Your task to perform on an android device: turn off location history Image 0: 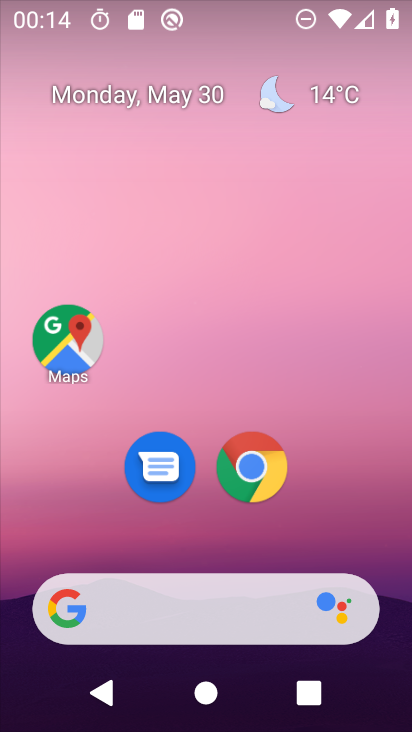
Step 0: drag from (199, 546) to (172, 212)
Your task to perform on an android device: turn off location history Image 1: 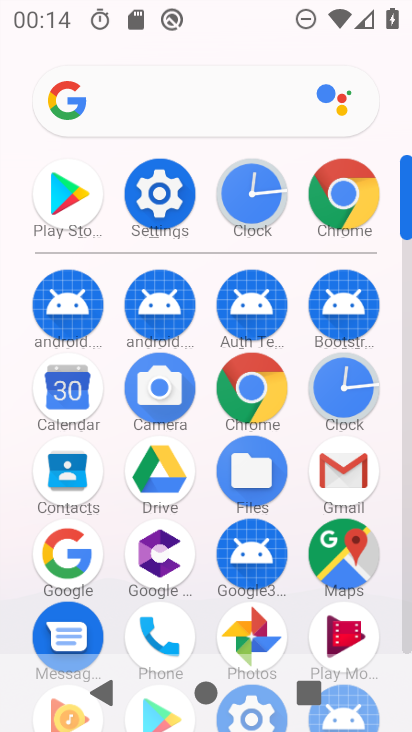
Step 1: click (164, 218)
Your task to perform on an android device: turn off location history Image 2: 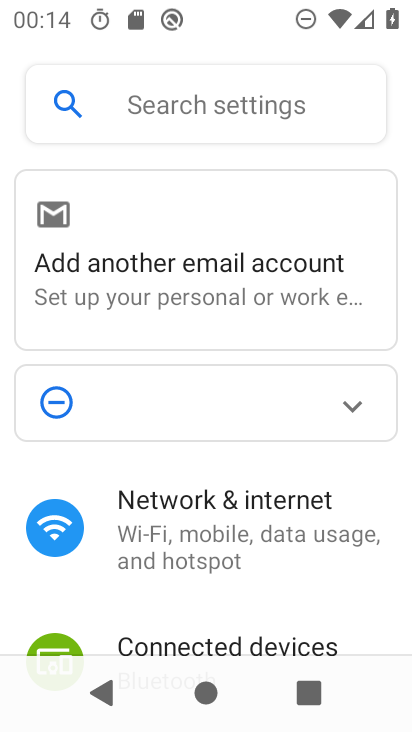
Step 2: drag from (203, 579) to (224, 317)
Your task to perform on an android device: turn off location history Image 3: 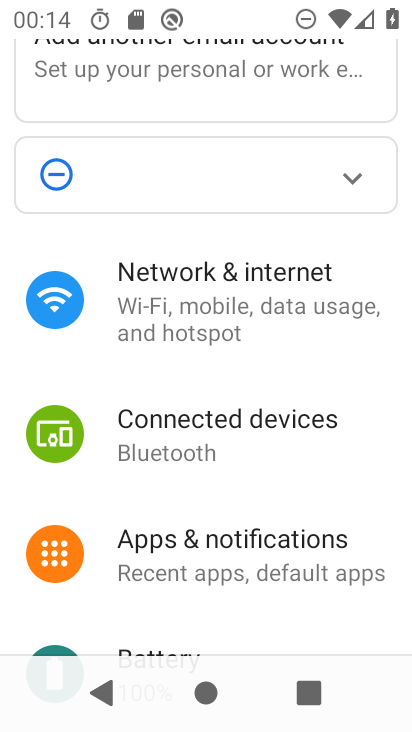
Step 3: drag from (200, 525) to (211, 333)
Your task to perform on an android device: turn off location history Image 4: 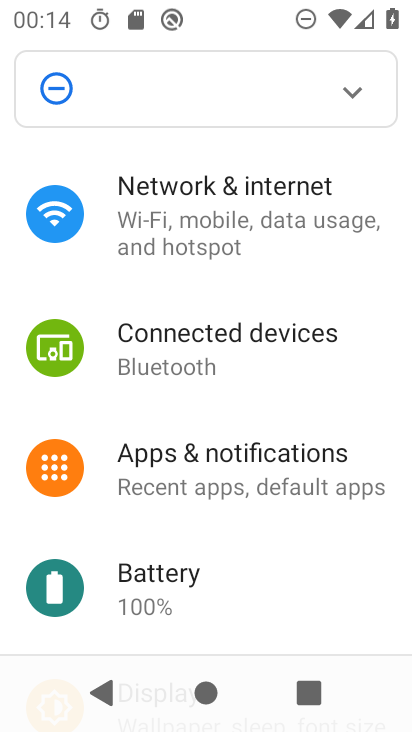
Step 4: drag from (197, 563) to (214, 341)
Your task to perform on an android device: turn off location history Image 5: 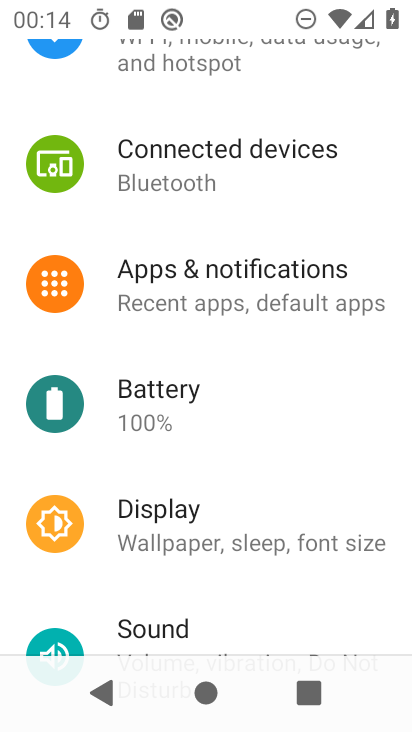
Step 5: drag from (202, 562) to (212, 341)
Your task to perform on an android device: turn off location history Image 6: 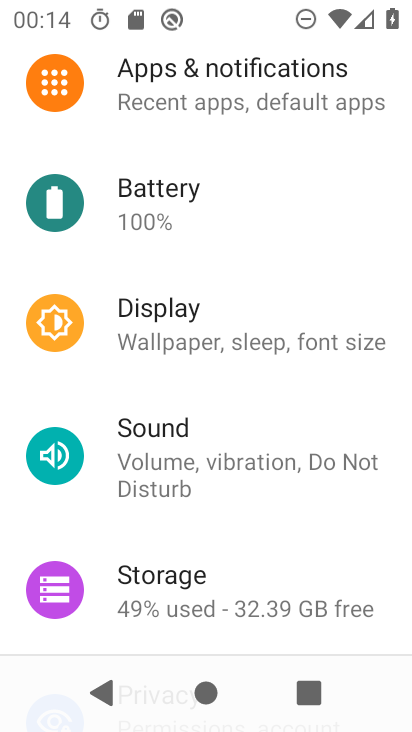
Step 6: drag from (217, 561) to (214, 313)
Your task to perform on an android device: turn off location history Image 7: 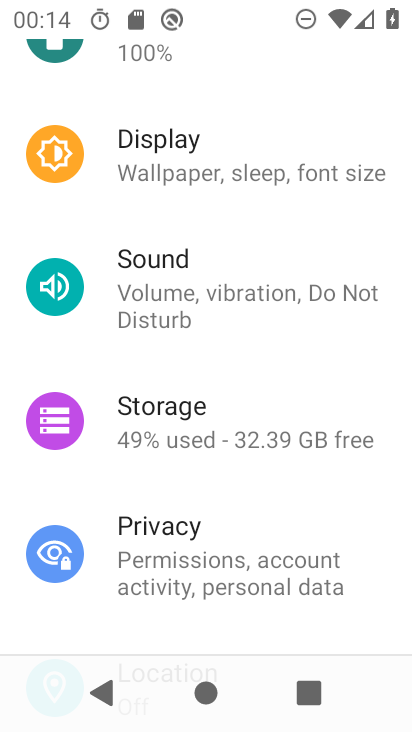
Step 7: drag from (209, 536) to (211, 302)
Your task to perform on an android device: turn off location history Image 8: 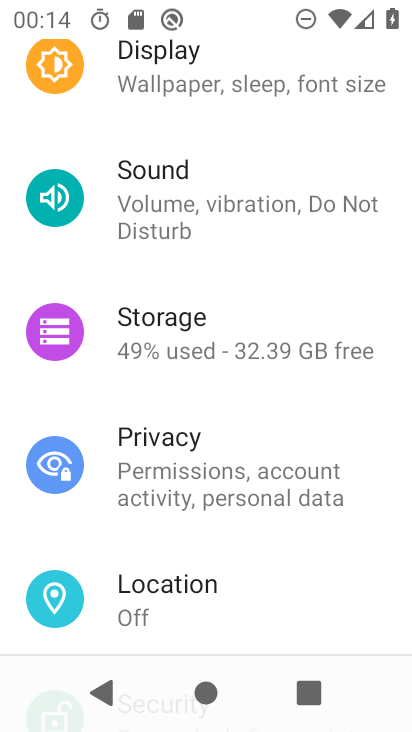
Step 8: drag from (213, 544) to (215, 263)
Your task to perform on an android device: turn off location history Image 9: 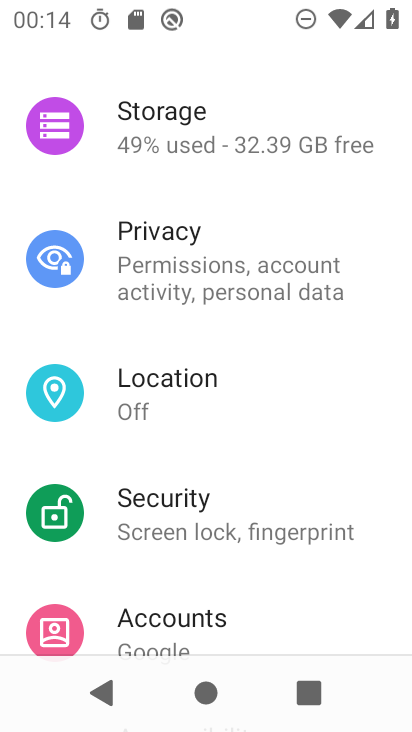
Step 9: click (191, 418)
Your task to perform on an android device: turn off location history Image 10: 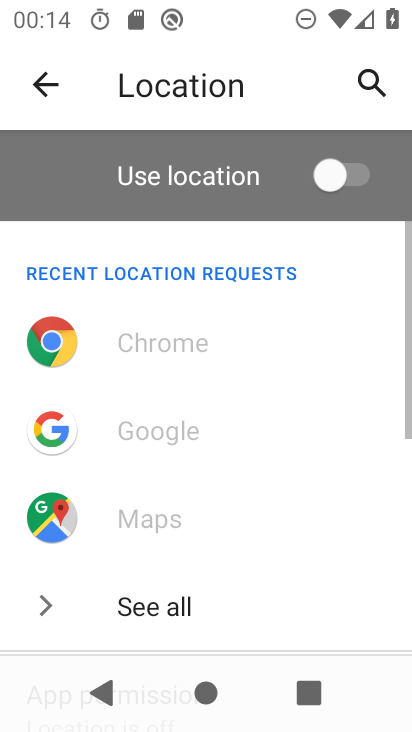
Step 10: drag from (209, 489) to (208, 244)
Your task to perform on an android device: turn off location history Image 11: 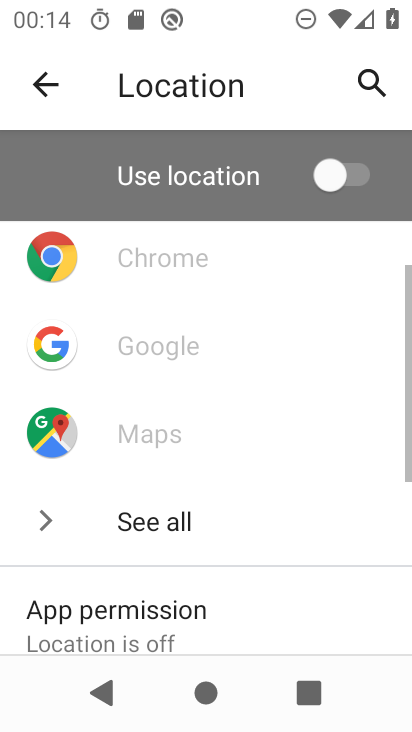
Step 11: drag from (177, 397) to (178, 195)
Your task to perform on an android device: turn off location history Image 12: 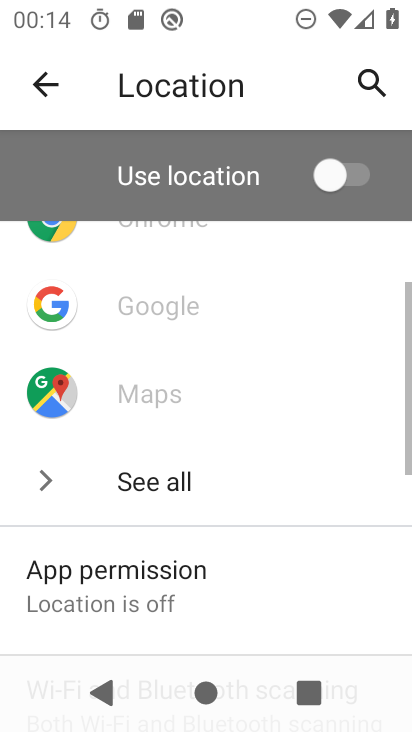
Step 12: drag from (183, 490) to (188, 215)
Your task to perform on an android device: turn off location history Image 13: 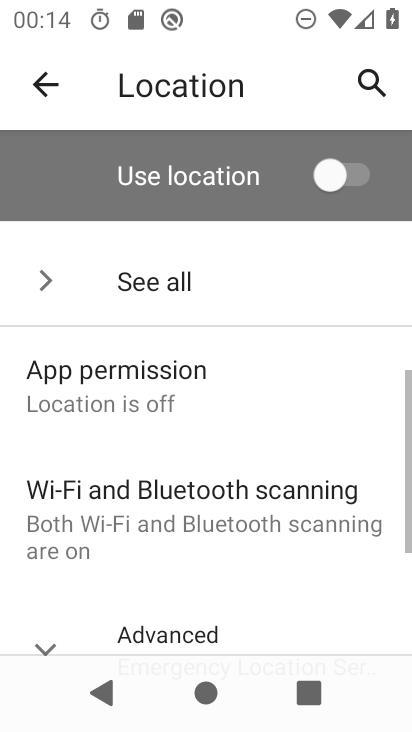
Step 13: drag from (189, 463) to (195, 208)
Your task to perform on an android device: turn off location history Image 14: 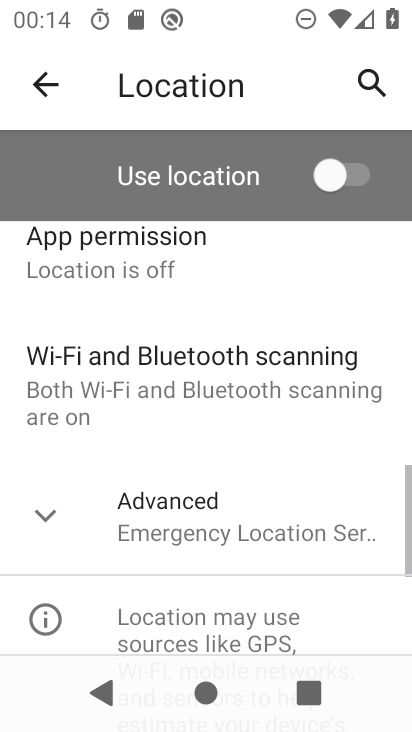
Step 14: drag from (196, 461) to (203, 298)
Your task to perform on an android device: turn off location history Image 15: 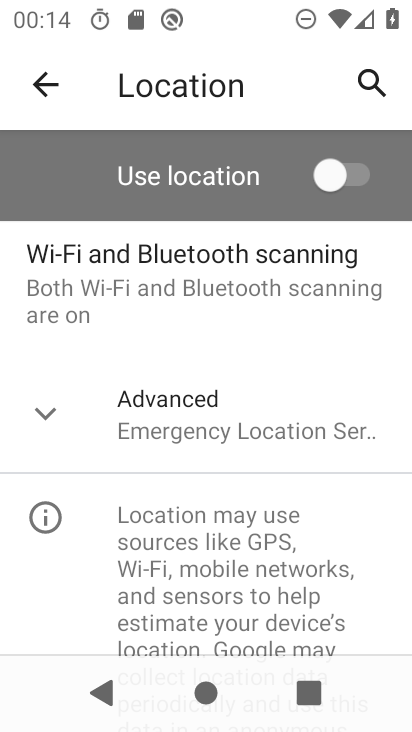
Step 15: click (183, 390)
Your task to perform on an android device: turn off location history Image 16: 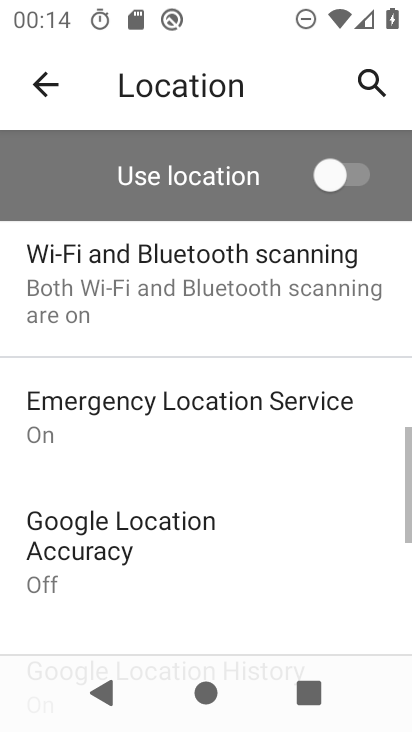
Step 16: drag from (173, 565) to (204, 252)
Your task to perform on an android device: turn off location history Image 17: 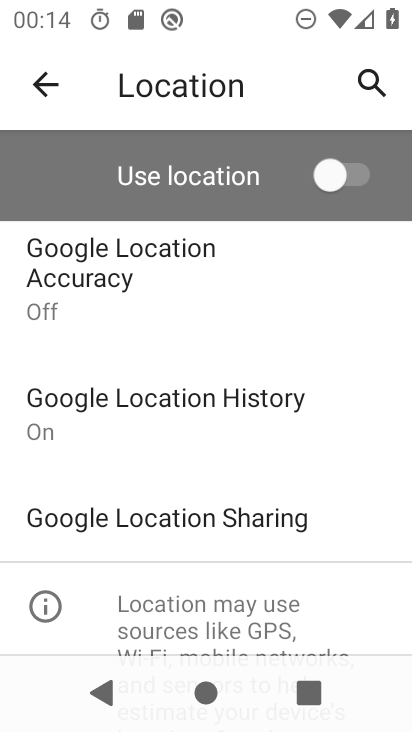
Step 17: click (178, 412)
Your task to perform on an android device: turn off location history Image 18: 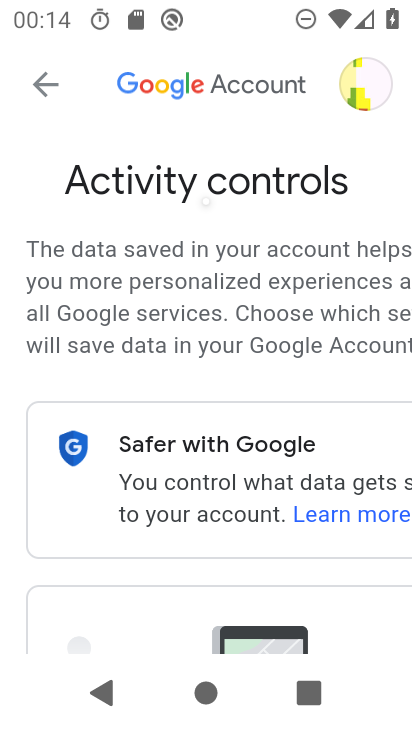
Step 18: drag from (172, 539) to (172, 201)
Your task to perform on an android device: turn off location history Image 19: 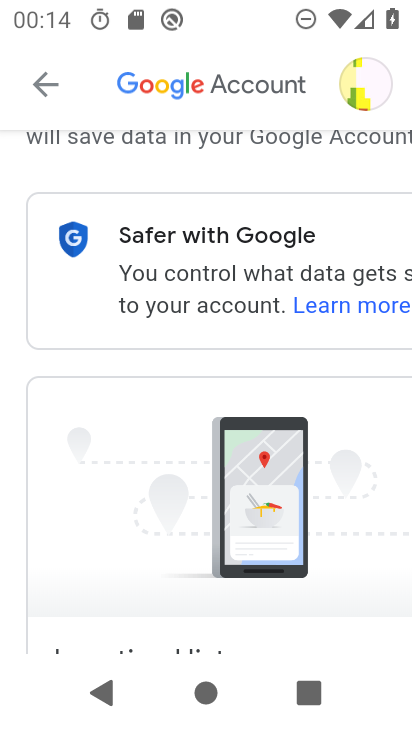
Step 19: drag from (168, 584) to (176, 248)
Your task to perform on an android device: turn off location history Image 20: 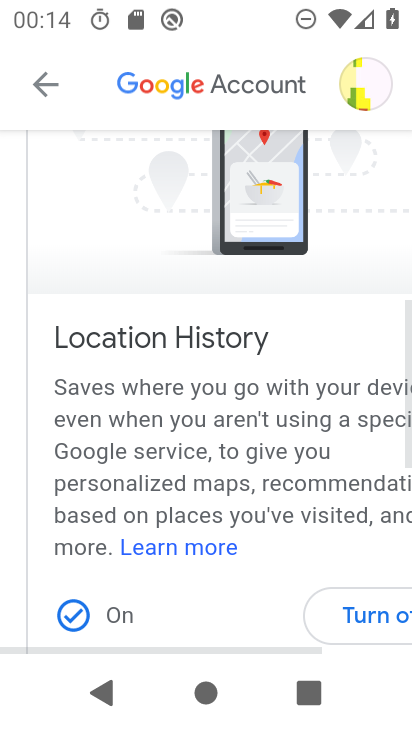
Step 20: drag from (168, 576) to (179, 307)
Your task to perform on an android device: turn off location history Image 21: 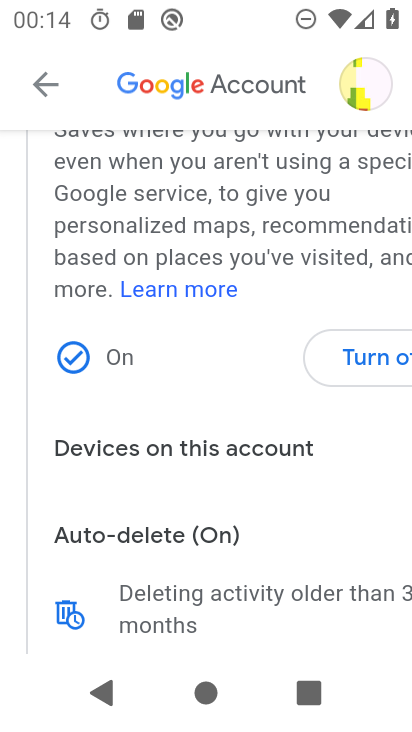
Step 21: click (343, 367)
Your task to perform on an android device: turn off location history Image 22: 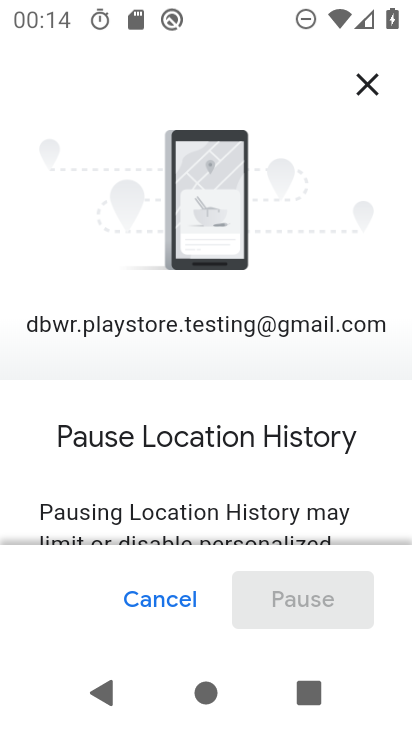
Step 22: drag from (241, 514) to (214, 230)
Your task to perform on an android device: turn off location history Image 23: 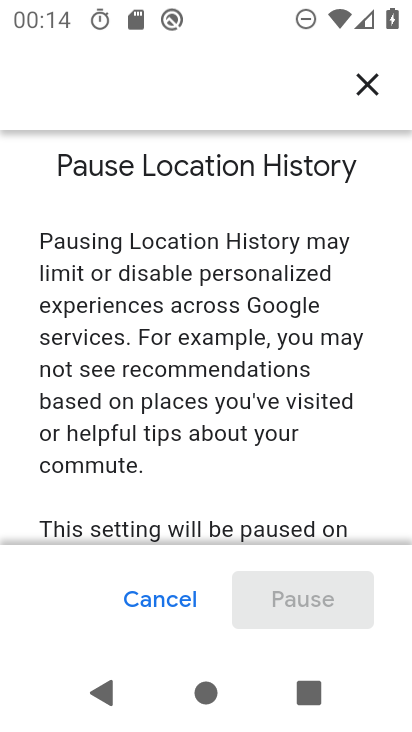
Step 23: drag from (233, 478) to (237, 271)
Your task to perform on an android device: turn off location history Image 24: 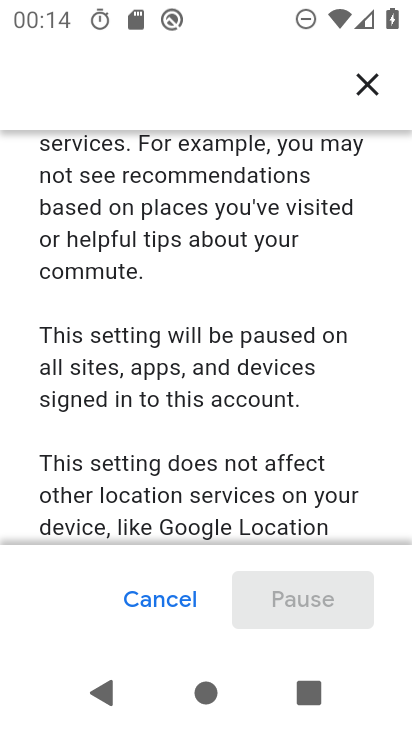
Step 24: drag from (239, 486) to (248, 250)
Your task to perform on an android device: turn off location history Image 25: 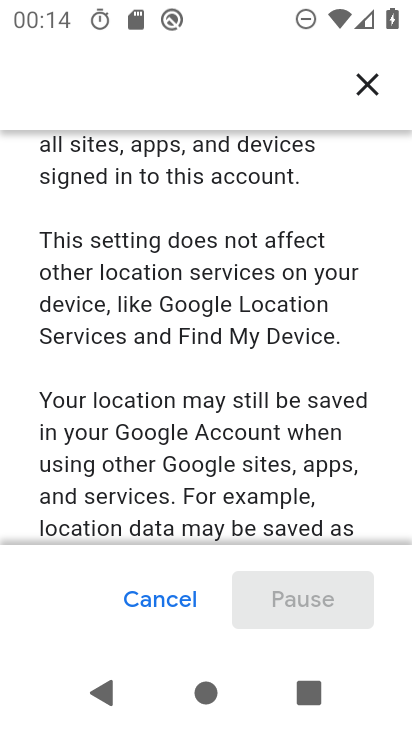
Step 25: drag from (250, 471) to (250, 220)
Your task to perform on an android device: turn off location history Image 26: 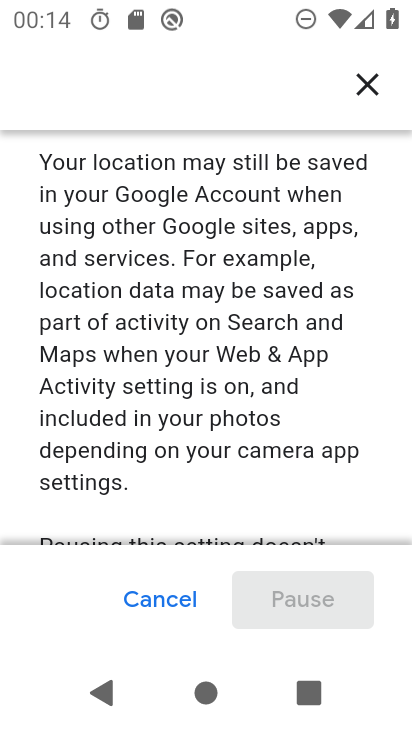
Step 26: drag from (252, 497) to (244, 227)
Your task to perform on an android device: turn off location history Image 27: 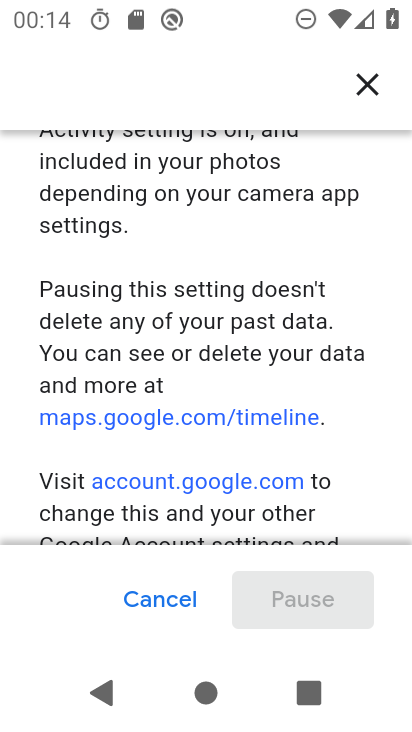
Step 27: drag from (255, 522) to (249, 230)
Your task to perform on an android device: turn off location history Image 28: 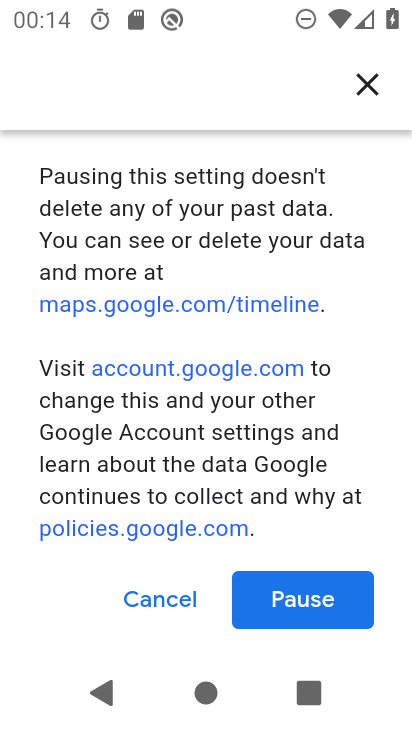
Step 28: click (269, 598)
Your task to perform on an android device: turn off location history Image 29: 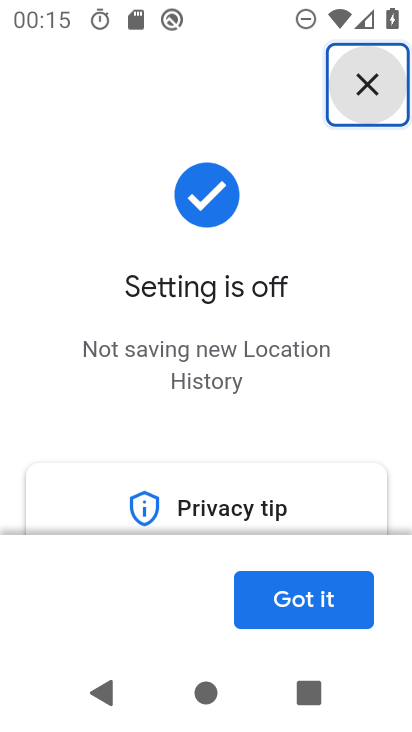
Step 29: press home button
Your task to perform on an android device: turn off location history Image 30: 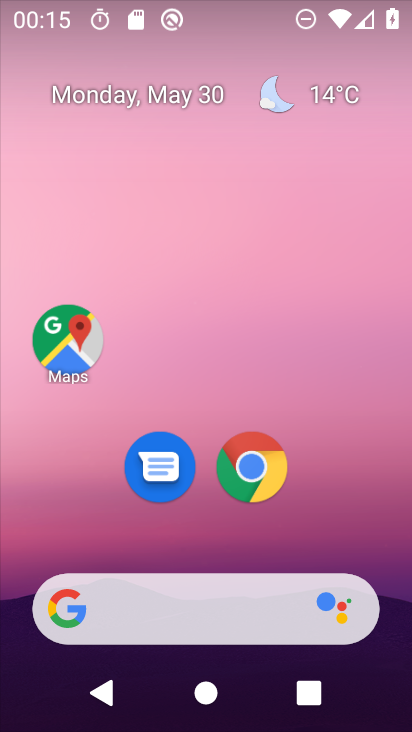
Step 30: drag from (192, 544) to (198, 192)
Your task to perform on an android device: turn off location history Image 31: 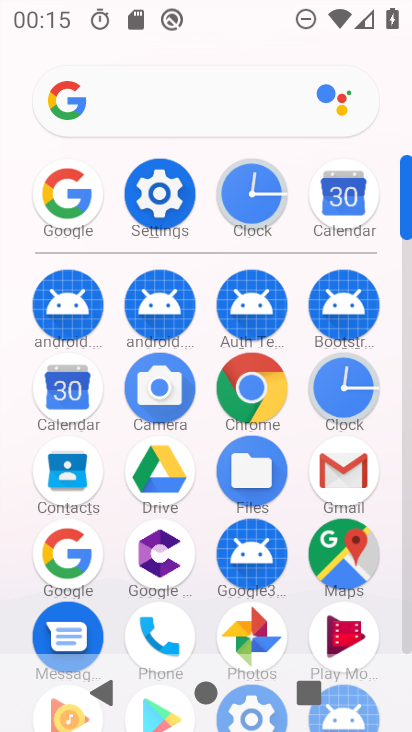
Step 31: click (157, 226)
Your task to perform on an android device: turn off location history Image 32: 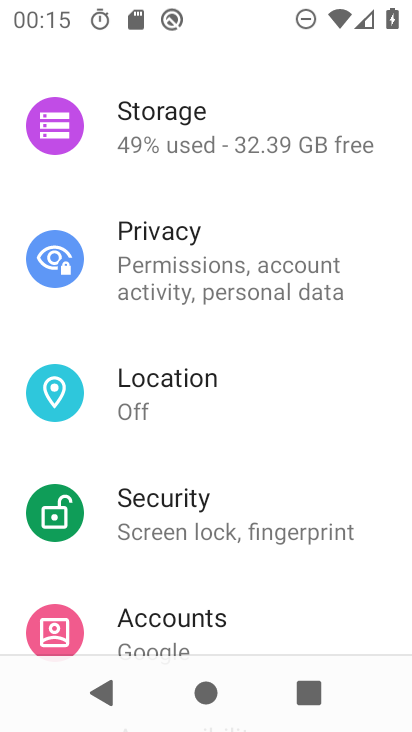
Step 32: click (185, 404)
Your task to perform on an android device: turn off location history Image 33: 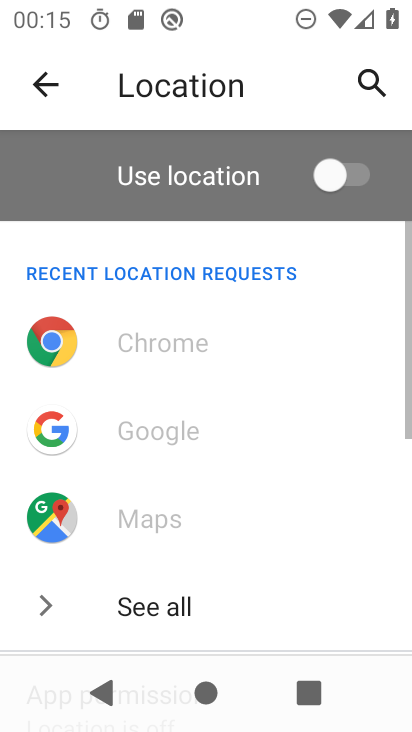
Step 33: drag from (203, 559) to (197, 161)
Your task to perform on an android device: turn off location history Image 34: 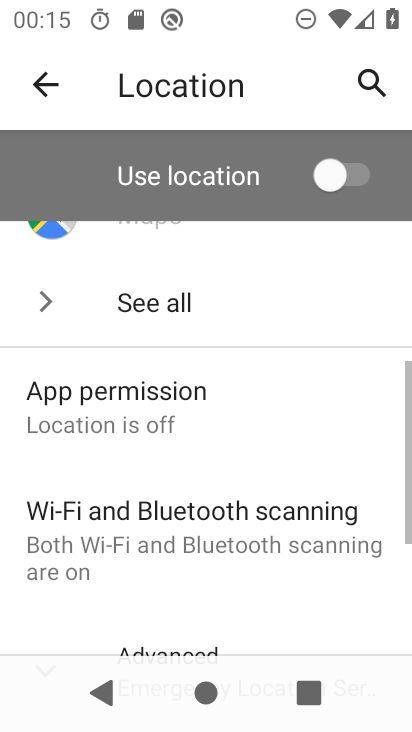
Step 34: drag from (163, 531) to (178, 274)
Your task to perform on an android device: turn off location history Image 35: 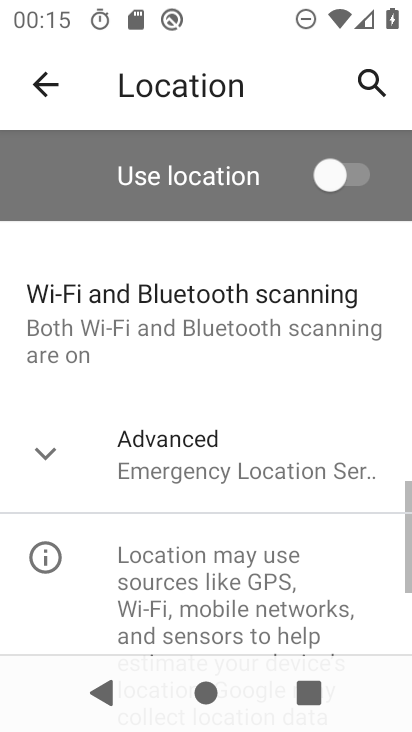
Step 35: drag from (176, 518) to (203, 305)
Your task to perform on an android device: turn off location history Image 36: 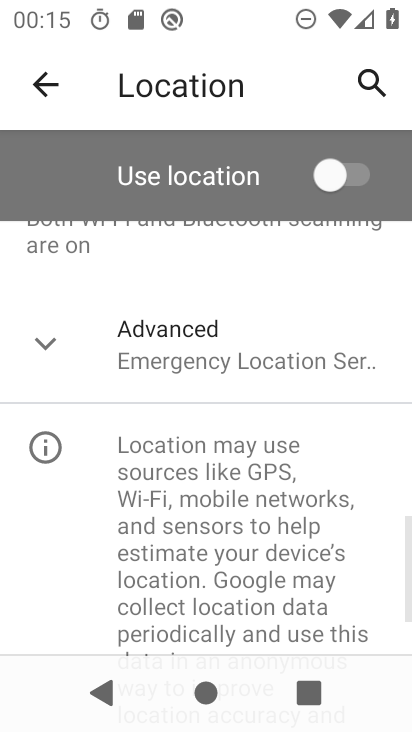
Step 36: drag from (190, 524) to (216, 276)
Your task to perform on an android device: turn off location history Image 37: 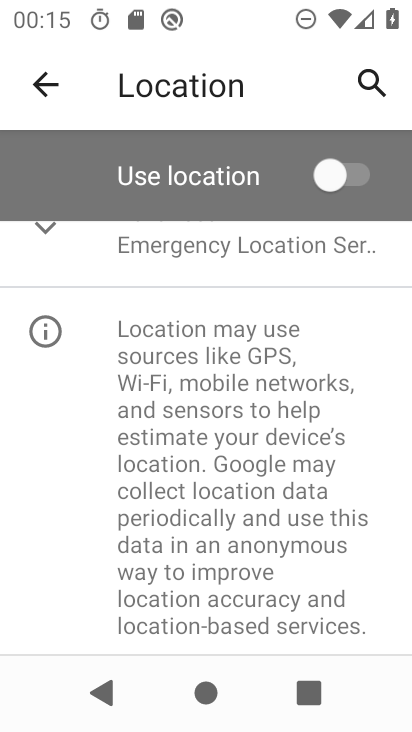
Step 37: drag from (200, 312) to (191, 423)
Your task to perform on an android device: turn off location history Image 38: 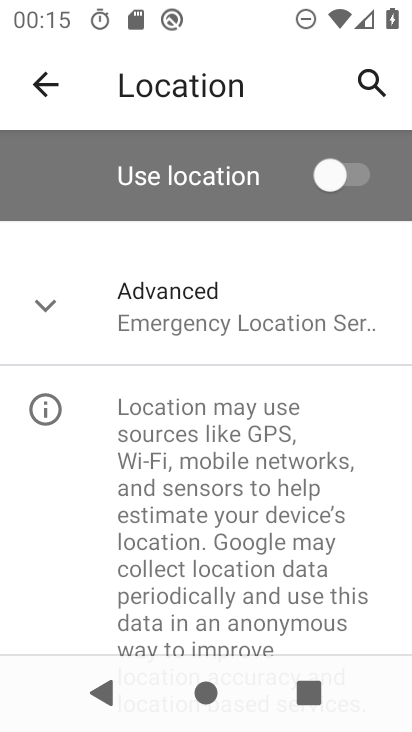
Step 38: click (159, 314)
Your task to perform on an android device: turn off location history Image 39: 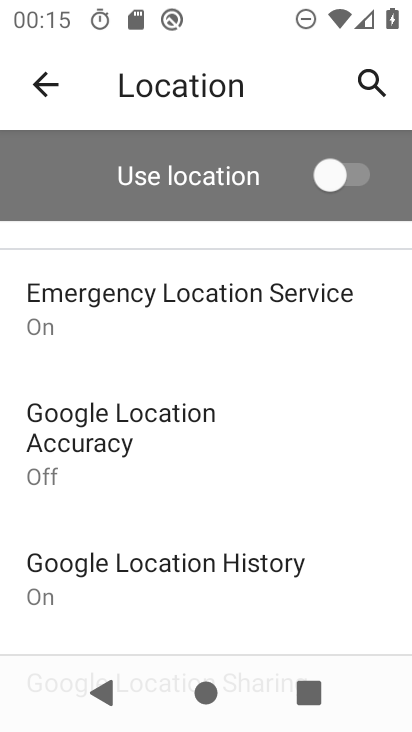
Step 39: drag from (170, 493) to (173, 312)
Your task to perform on an android device: turn off location history Image 40: 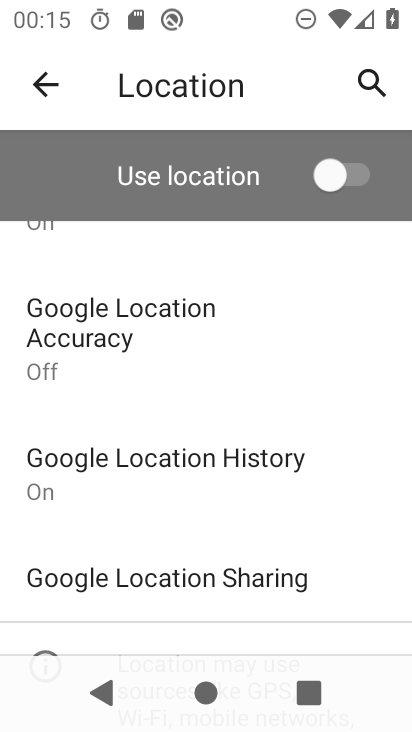
Step 40: click (151, 462)
Your task to perform on an android device: turn off location history Image 41: 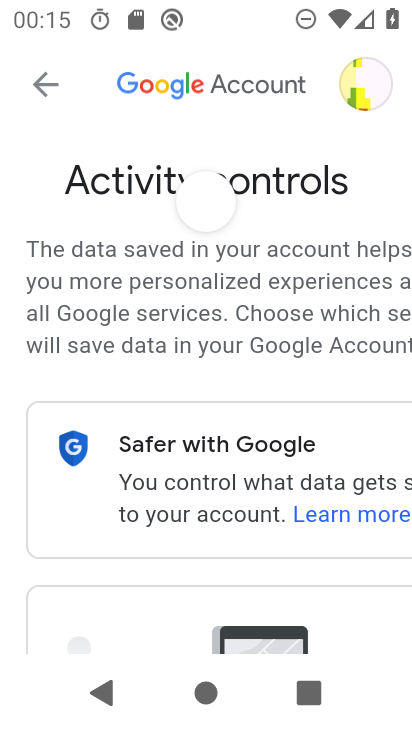
Step 41: task complete